Your task to perform on an android device: turn on notifications settings in the gmail app Image 0: 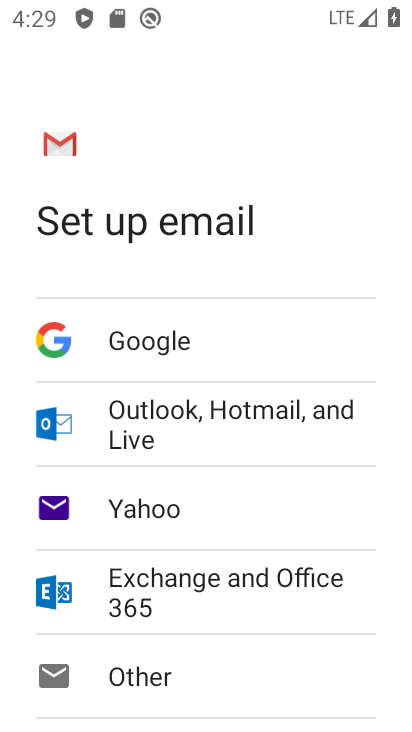
Step 0: press home button
Your task to perform on an android device: turn on notifications settings in the gmail app Image 1: 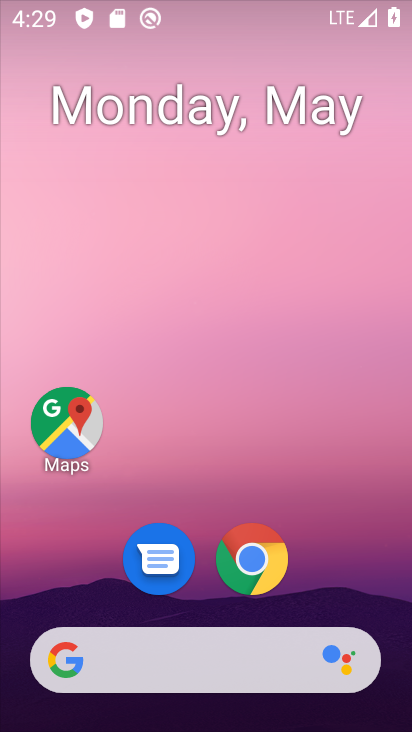
Step 1: drag from (305, 656) to (335, 7)
Your task to perform on an android device: turn on notifications settings in the gmail app Image 2: 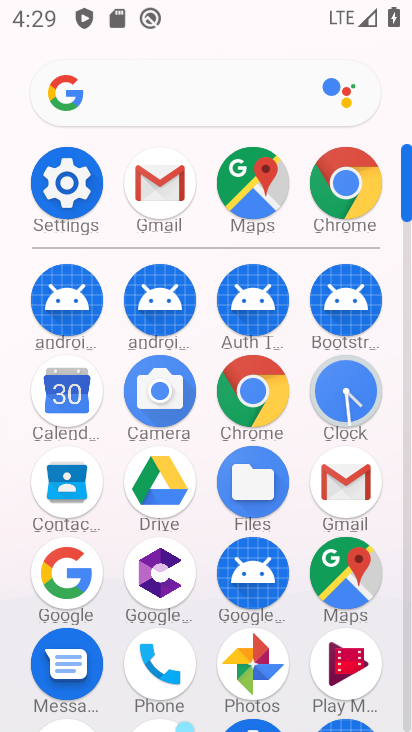
Step 2: click (349, 483)
Your task to perform on an android device: turn on notifications settings in the gmail app Image 3: 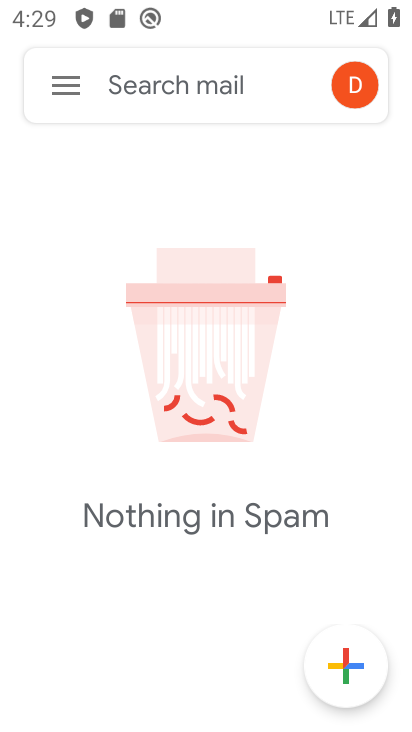
Step 3: click (65, 83)
Your task to perform on an android device: turn on notifications settings in the gmail app Image 4: 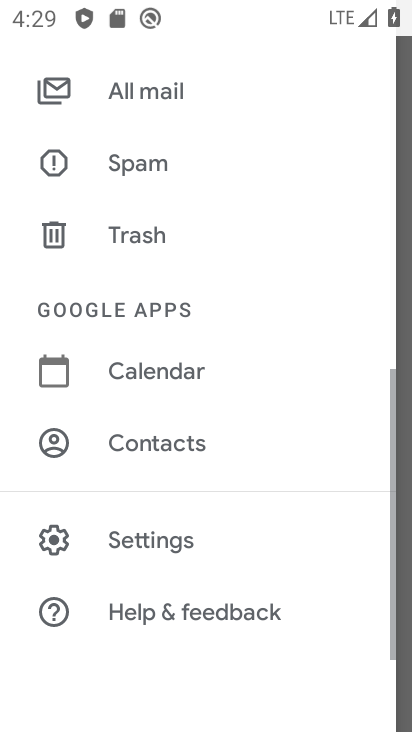
Step 4: click (170, 549)
Your task to perform on an android device: turn on notifications settings in the gmail app Image 5: 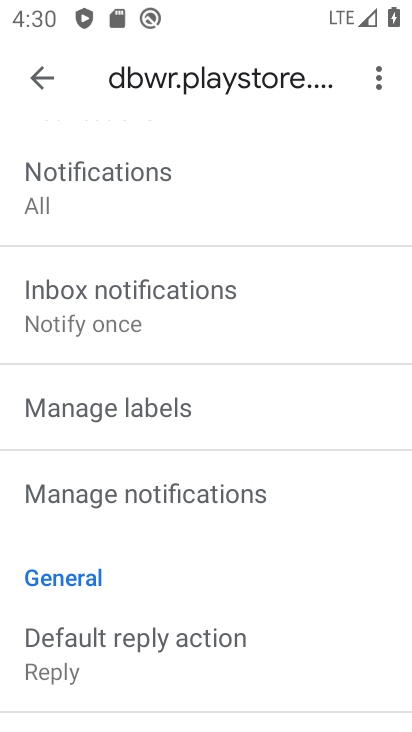
Step 5: click (229, 498)
Your task to perform on an android device: turn on notifications settings in the gmail app Image 6: 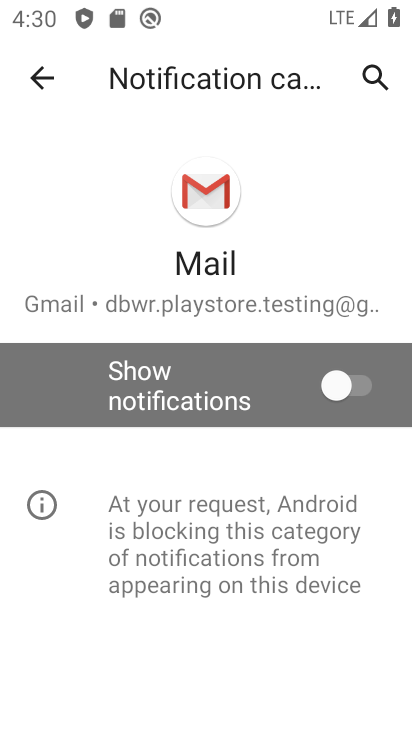
Step 6: task complete